Your task to perform on an android device: Show me the alarms in the clock app Image 0: 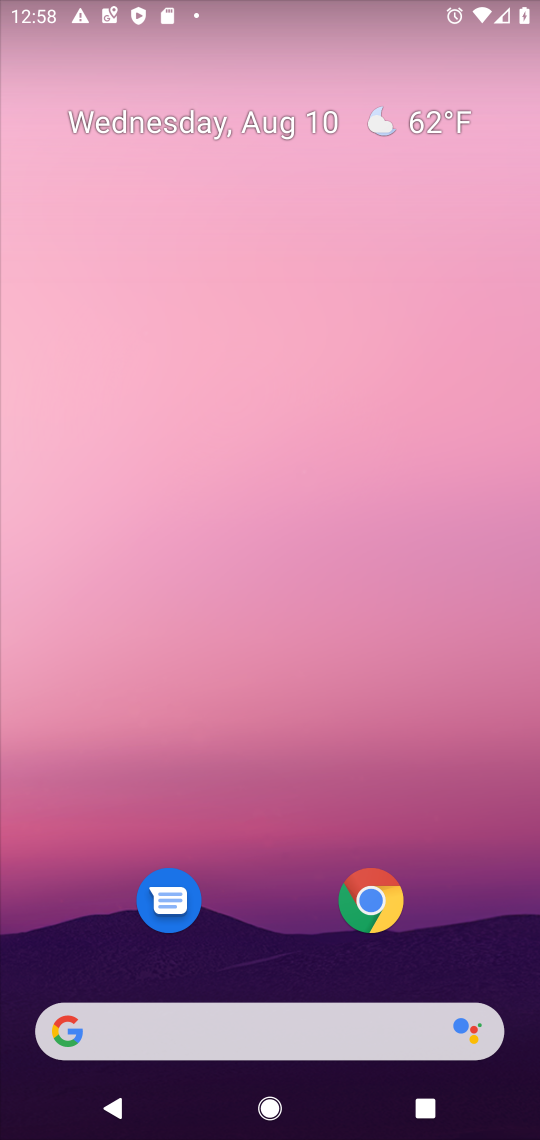
Step 0: drag from (272, 871) to (291, 0)
Your task to perform on an android device: Show me the alarms in the clock app Image 1: 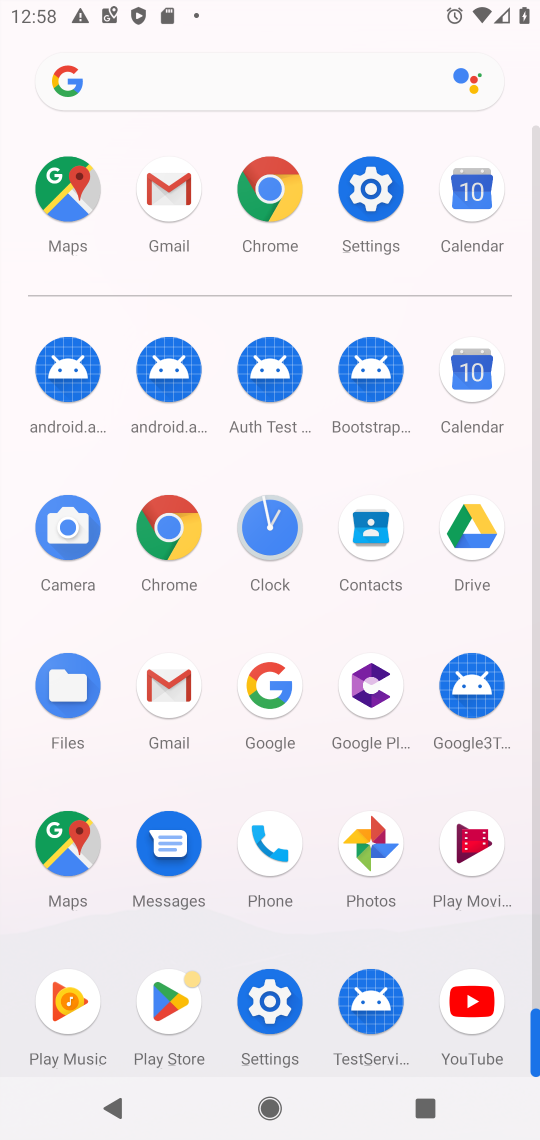
Step 1: click (276, 524)
Your task to perform on an android device: Show me the alarms in the clock app Image 2: 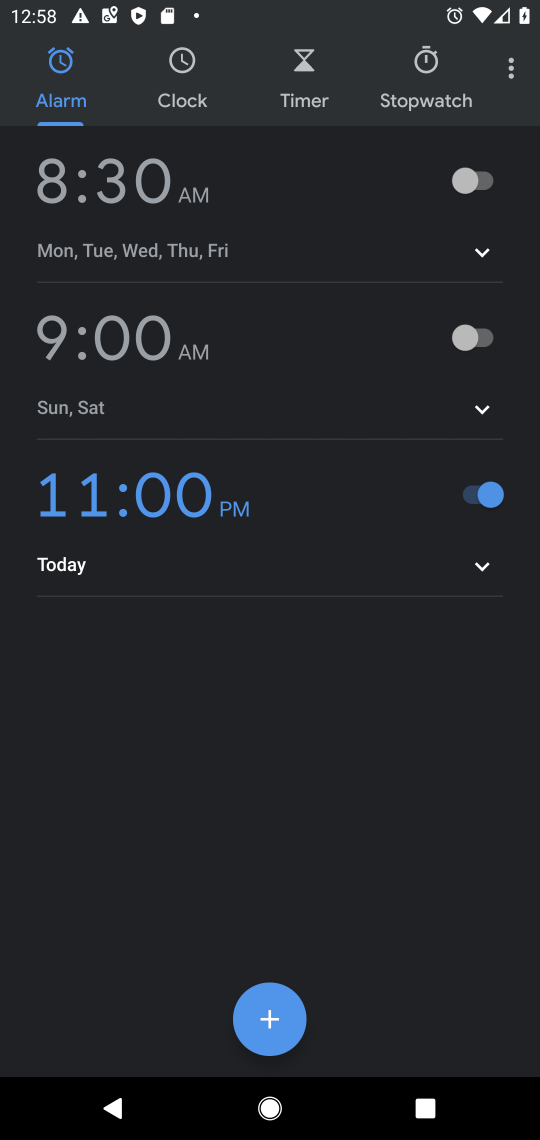
Step 2: task complete